Your task to perform on an android device: turn off picture-in-picture Image 0: 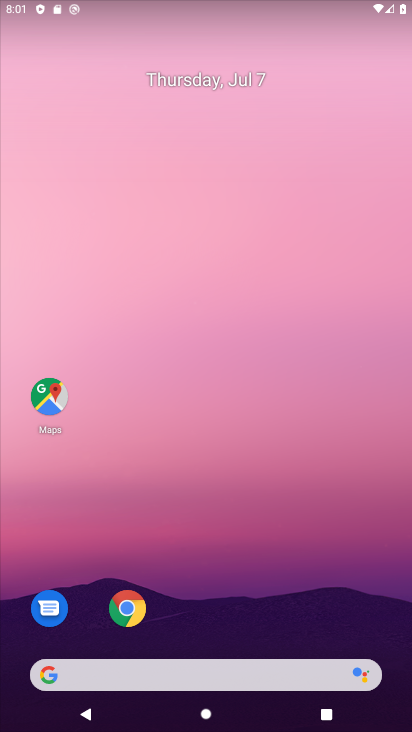
Step 0: click (129, 613)
Your task to perform on an android device: turn off picture-in-picture Image 1: 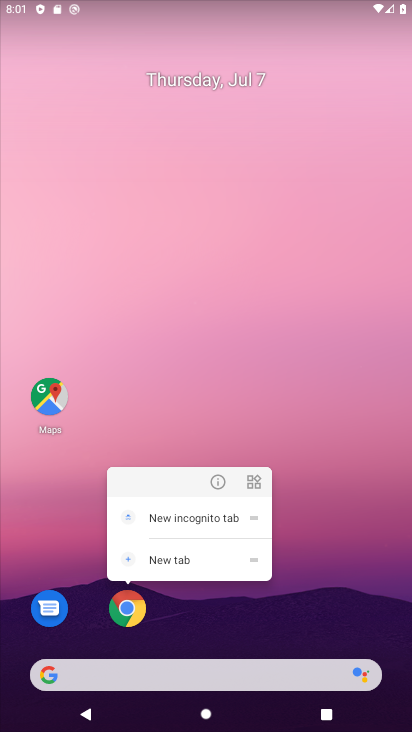
Step 1: click (216, 485)
Your task to perform on an android device: turn off picture-in-picture Image 2: 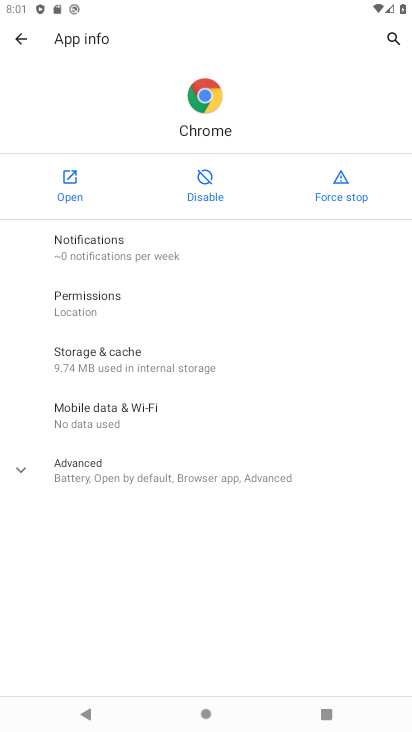
Step 2: click (119, 463)
Your task to perform on an android device: turn off picture-in-picture Image 3: 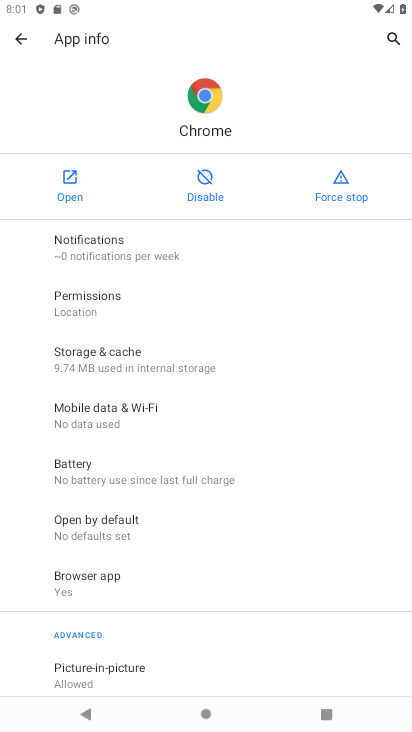
Step 3: click (145, 659)
Your task to perform on an android device: turn off picture-in-picture Image 4: 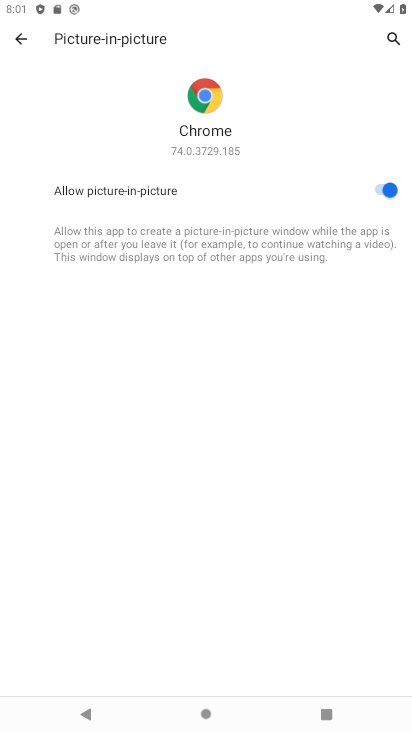
Step 4: click (369, 179)
Your task to perform on an android device: turn off picture-in-picture Image 5: 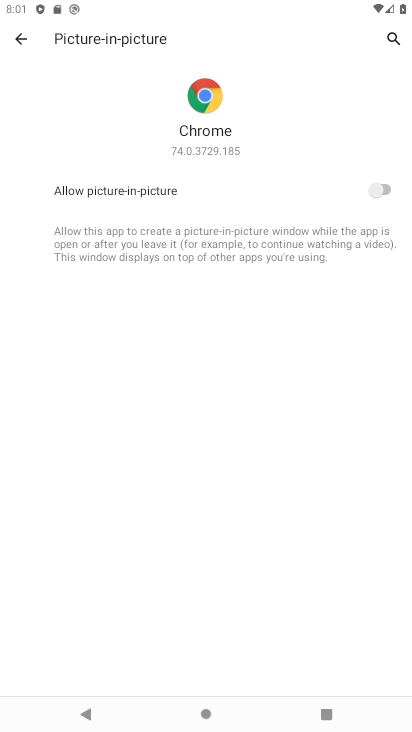
Step 5: task complete